Your task to perform on an android device: Open the Play Movies app and select the watchlist tab. Image 0: 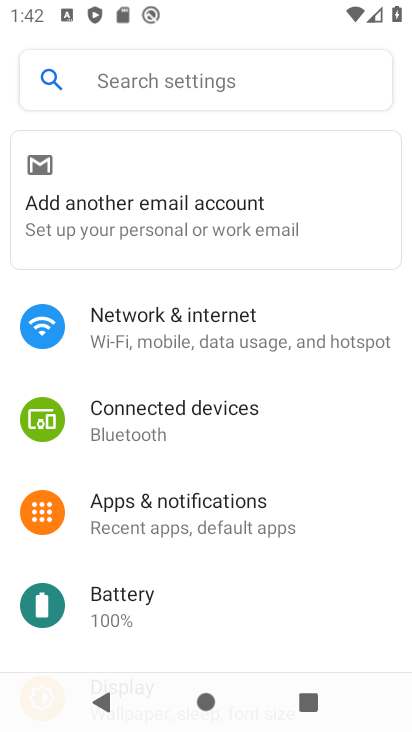
Step 0: press home button
Your task to perform on an android device: Open the Play Movies app and select the watchlist tab. Image 1: 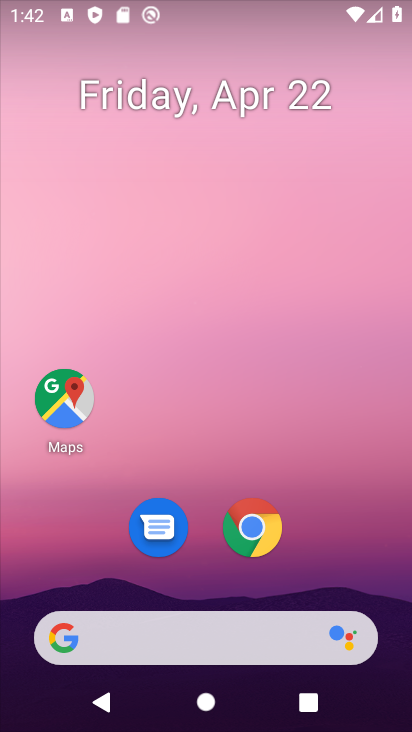
Step 1: drag from (356, 496) to (371, 112)
Your task to perform on an android device: Open the Play Movies app and select the watchlist tab. Image 2: 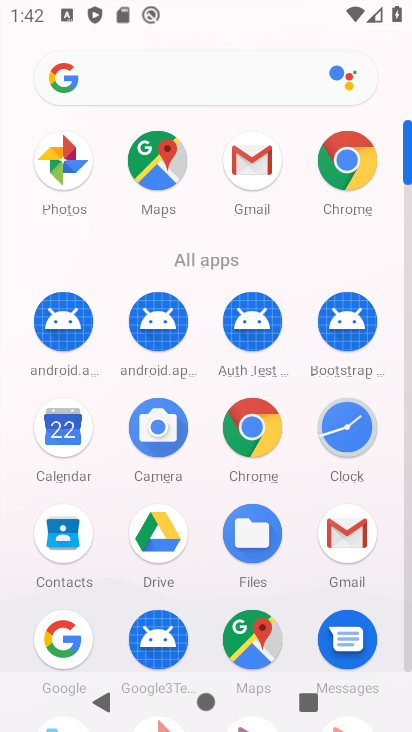
Step 2: drag from (377, 569) to (359, 161)
Your task to perform on an android device: Open the Play Movies app and select the watchlist tab. Image 3: 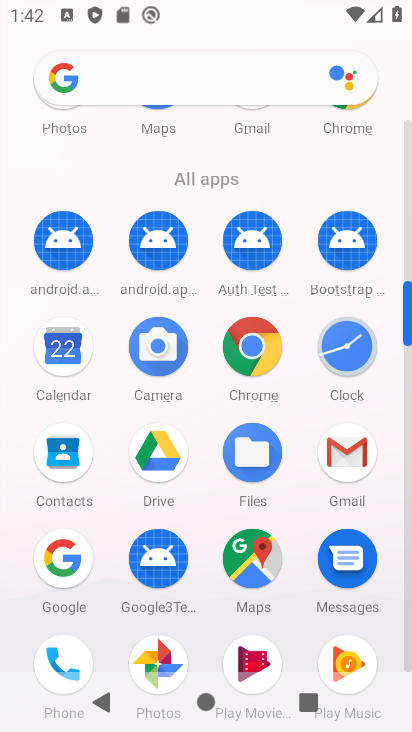
Step 3: drag from (362, 580) to (352, 297)
Your task to perform on an android device: Open the Play Movies app and select the watchlist tab. Image 4: 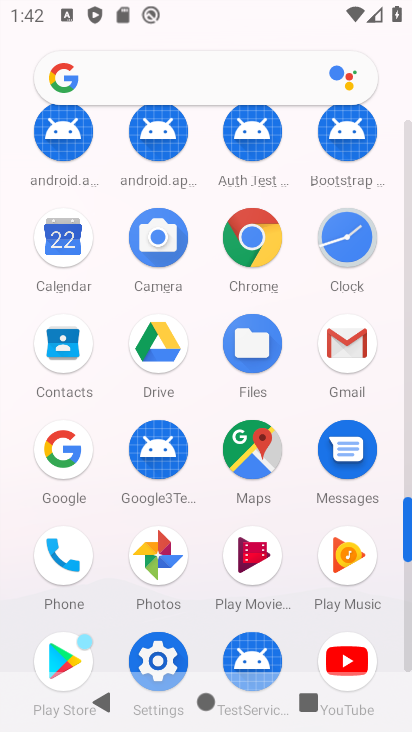
Step 4: click (255, 552)
Your task to perform on an android device: Open the Play Movies app and select the watchlist tab. Image 5: 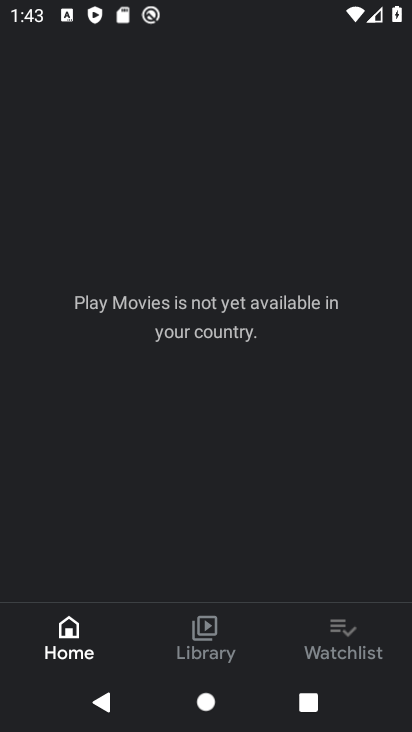
Step 5: click (352, 625)
Your task to perform on an android device: Open the Play Movies app and select the watchlist tab. Image 6: 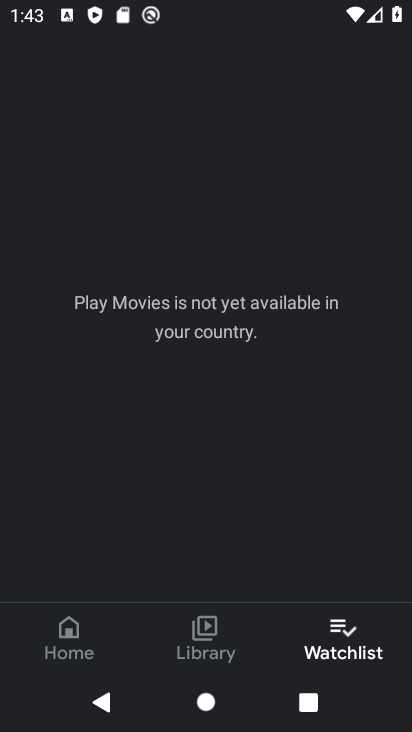
Step 6: task complete